Your task to perform on an android device: search for starred emails in the gmail app Image 0: 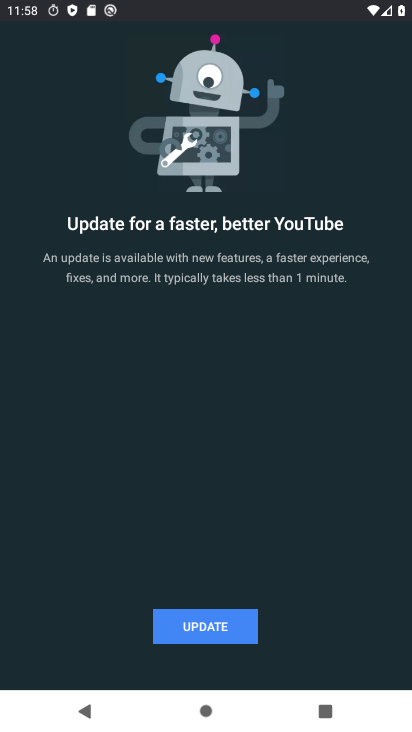
Step 0: press home button
Your task to perform on an android device: search for starred emails in the gmail app Image 1: 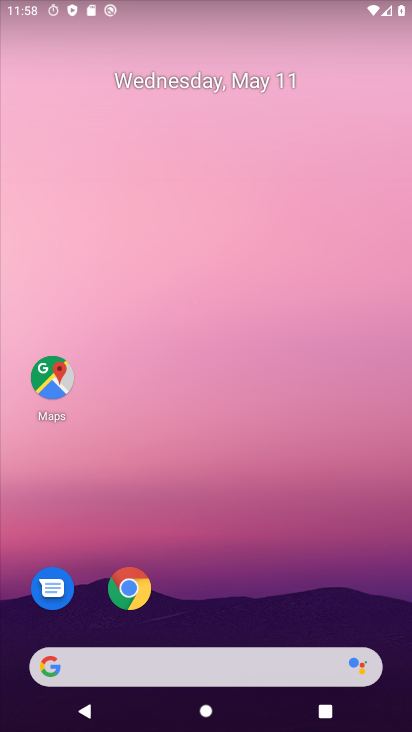
Step 1: drag from (215, 645) to (242, 95)
Your task to perform on an android device: search for starred emails in the gmail app Image 2: 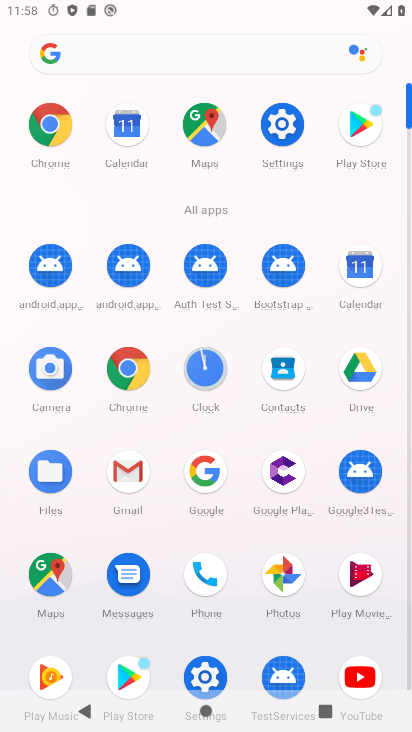
Step 2: click (131, 472)
Your task to perform on an android device: search for starred emails in the gmail app Image 3: 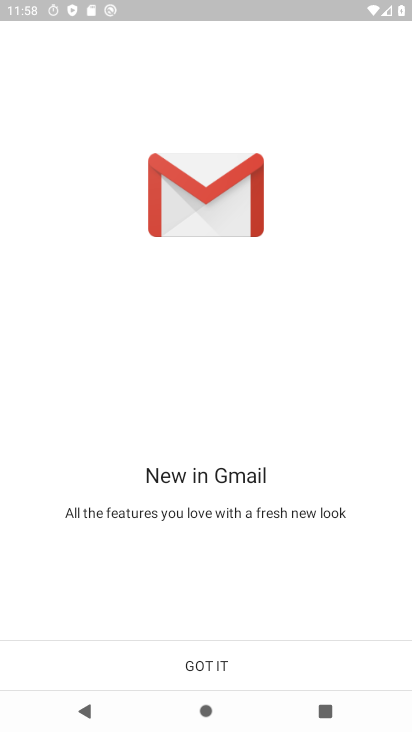
Step 3: click (204, 670)
Your task to perform on an android device: search for starred emails in the gmail app Image 4: 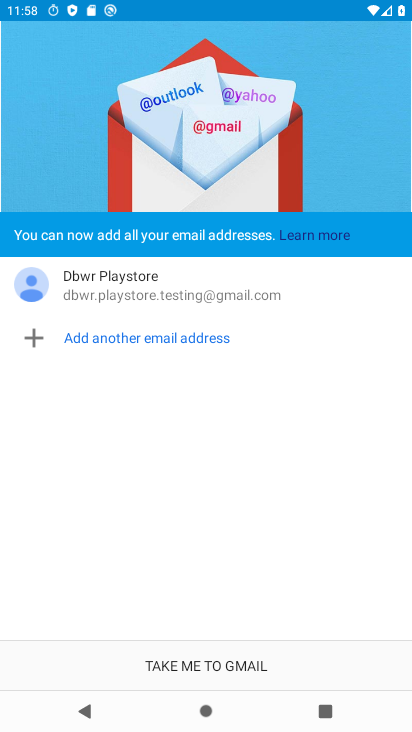
Step 4: click (189, 668)
Your task to perform on an android device: search for starred emails in the gmail app Image 5: 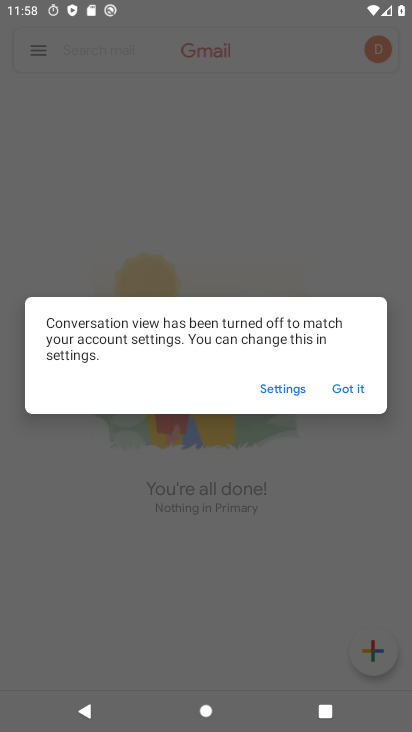
Step 5: click (348, 386)
Your task to perform on an android device: search for starred emails in the gmail app Image 6: 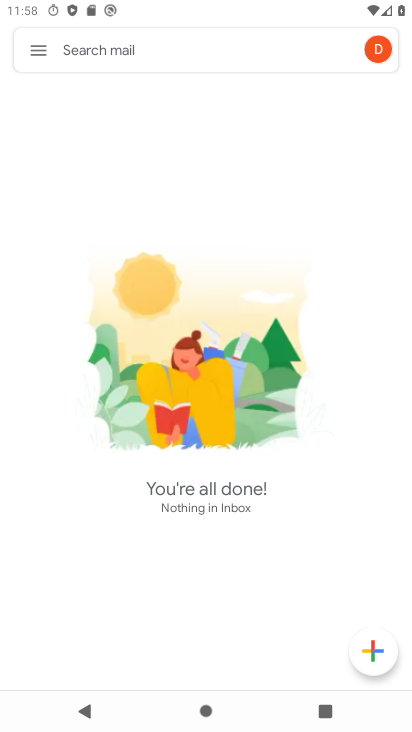
Step 6: click (42, 49)
Your task to perform on an android device: search for starred emails in the gmail app Image 7: 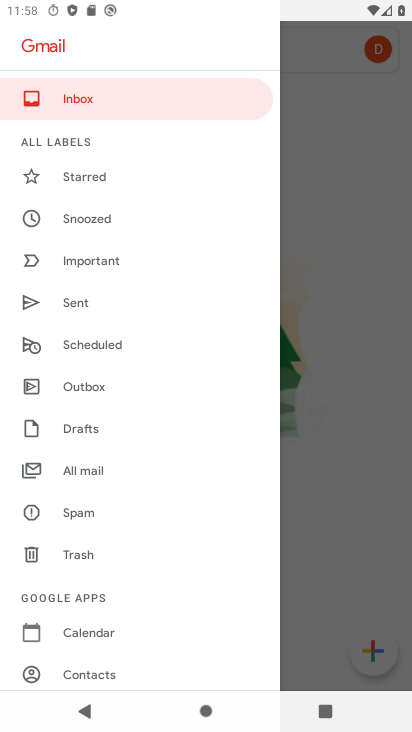
Step 7: click (85, 177)
Your task to perform on an android device: search for starred emails in the gmail app Image 8: 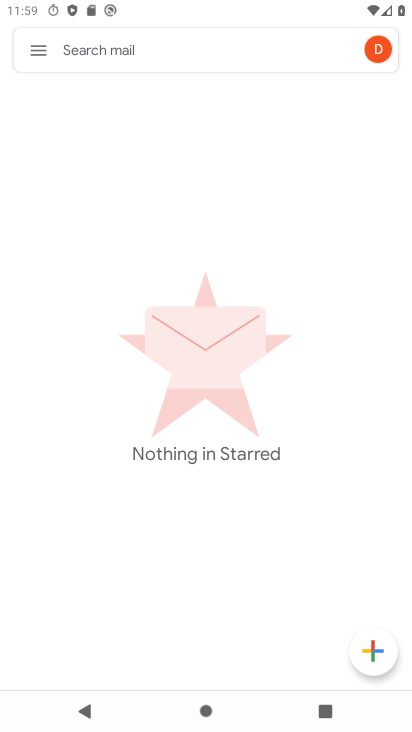
Step 8: task complete